Your task to perform on an android device: Open eBay Image 0: 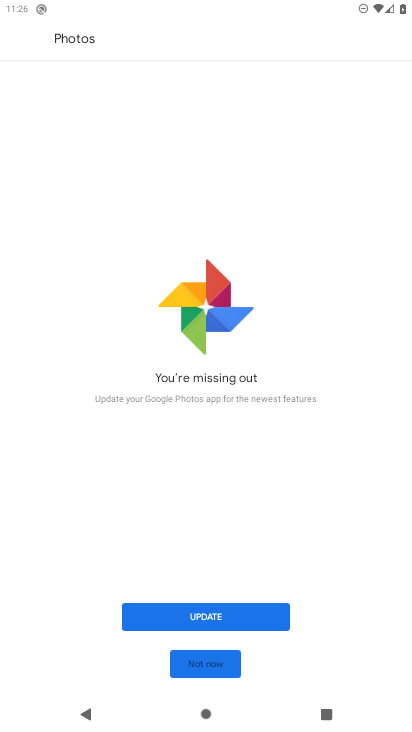
Step 0: drag from (159, 592) to (187, 349)
Your task to perform on an android device: Open eBay Image 1: 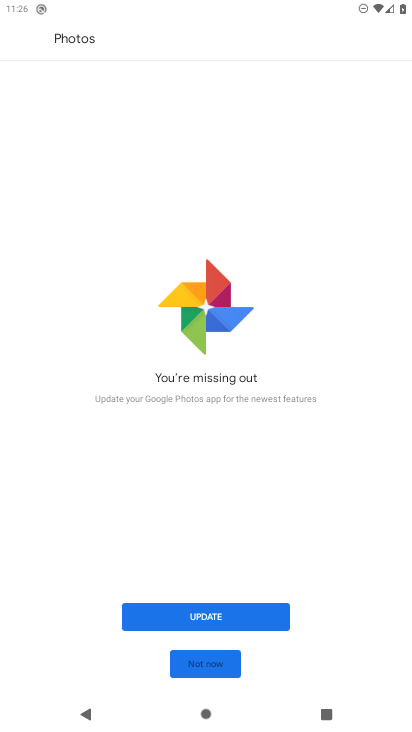
Step 1: press home button
Your task to perform on an android device: Open eBay Image 2: 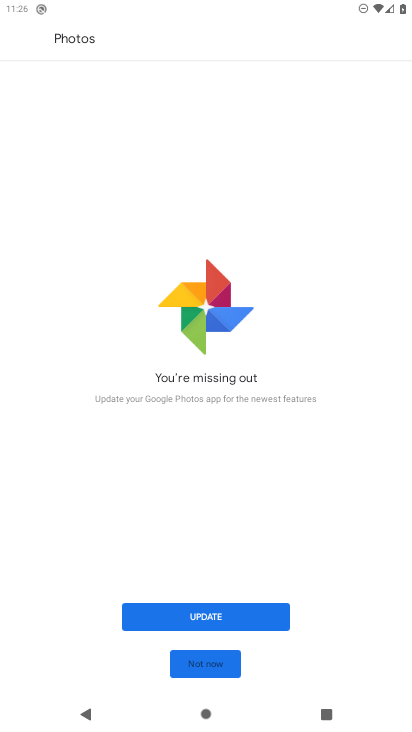
Step 2: press home button
Your task to perform on an android device: Open eBay Image 3: 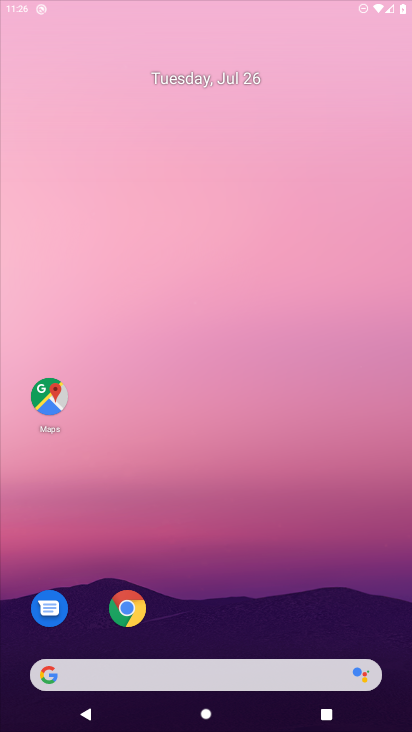
Step 3: drag from (393, 342) to (403, 189)
Your task to perform on an android device: Open eBay Image 4: 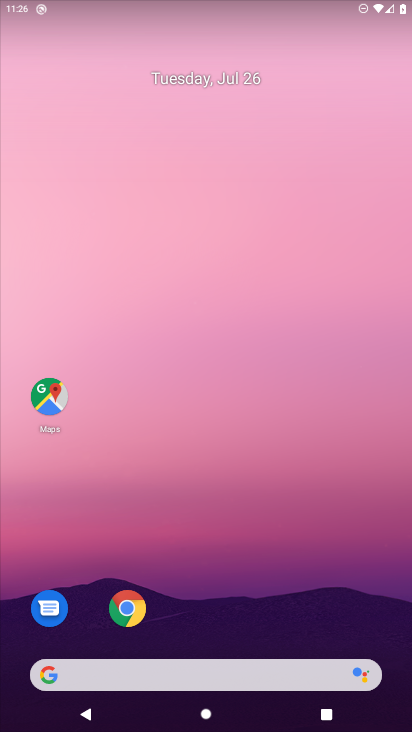
Step 4: drag from (175, 505) to (196, 155)
Your task to perform on an android device: Open eBay Image 5: 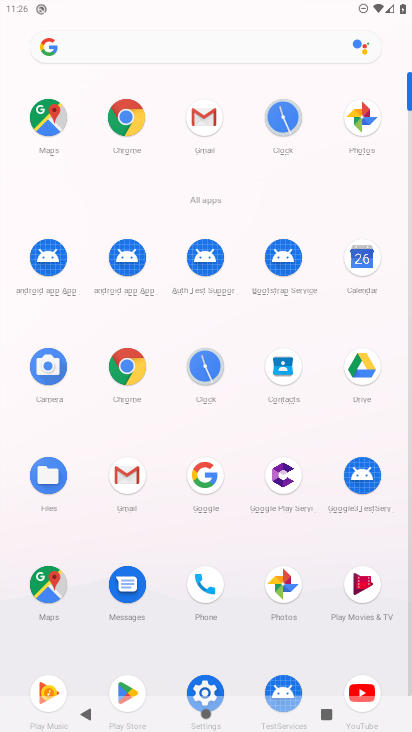
Step 5: click (133, 46)
Your task to perform on an android device: Open eBay Image 6: 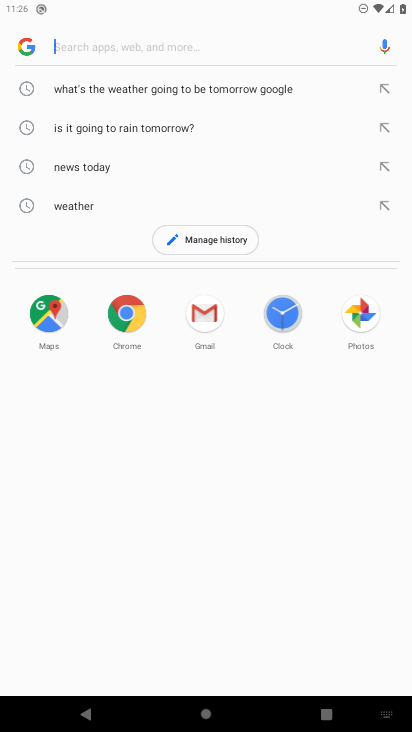
Step 6: drag from (213, 443) to (261, 213)
Your task to perform on an android device: Open eBay Image 7: 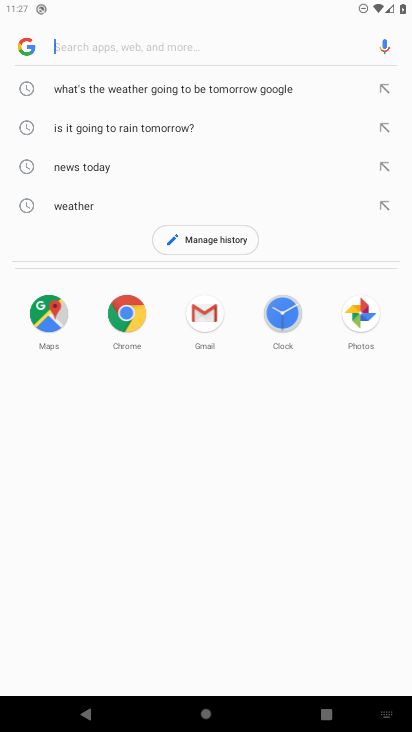
Step 7: type "eBay"
Your task to perform on an android device: Open eBay Image 8: 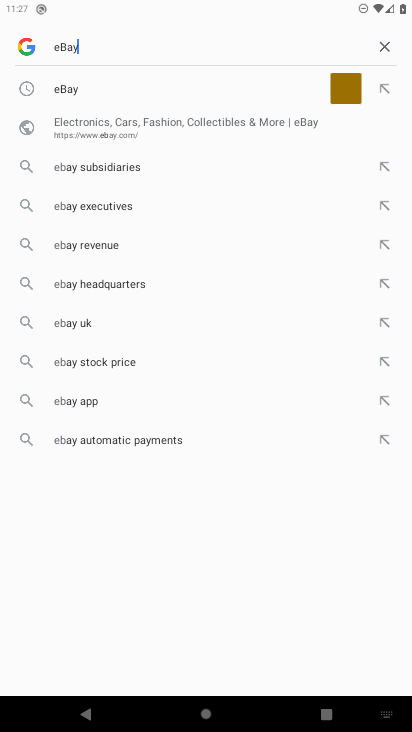
Step 8: type ""
Your task to perform on an android device: Open eBay Image 9: 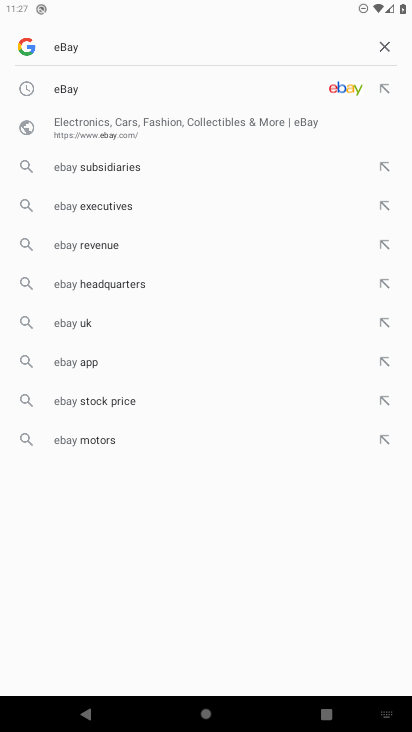
Step 9: click (175, 98)
Your task to perform on an android device: Open eBay Image 10: 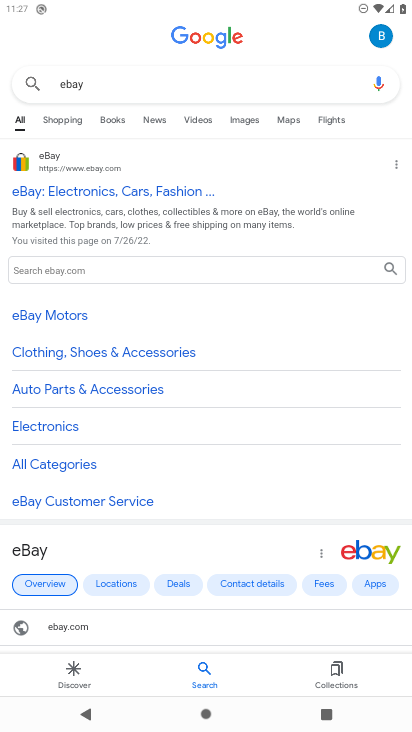
Step 10: click (81, 183)
Your task to perform on an android device: Open eBay Image 11: 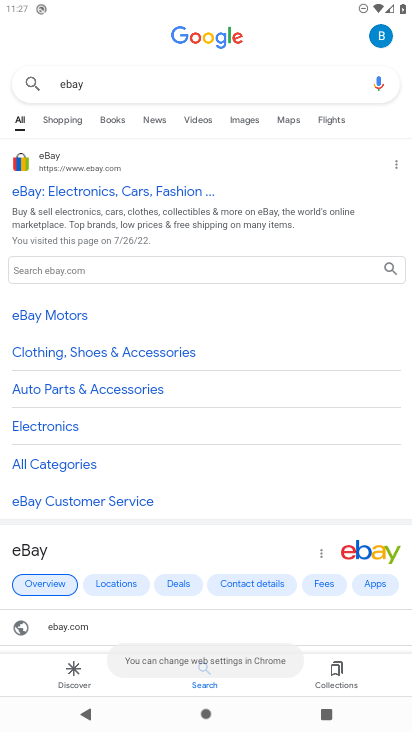
Step 11: task complete